Your task to perform on an android device: Open Chrome and go to the settings page Image 0: 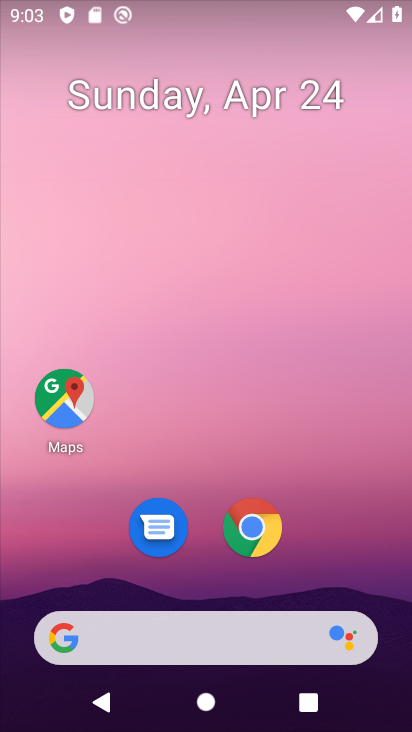
Step 0: click (264, 535)
Your task to perform on an android device: Open Chrome and go to the settings page Image 1: 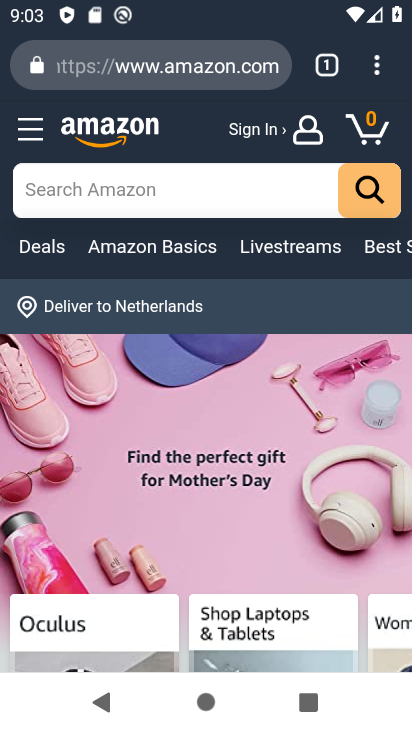
Step 1: task complete